Your task to perform on an android device: What is the recent news? Image 0: 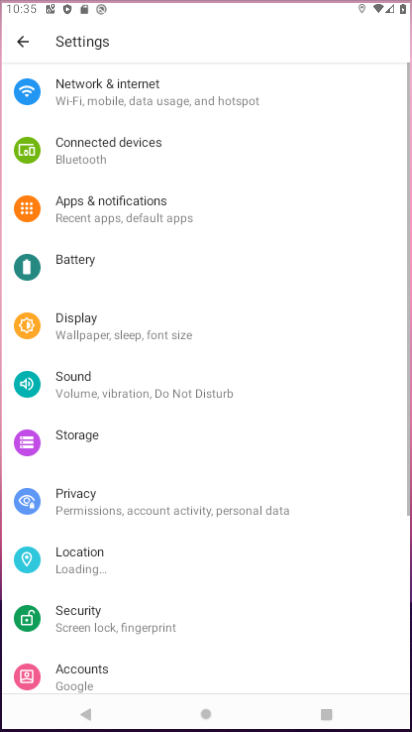
Step 0: press home button
Your task to perform on an android device: What is the recent news? Image 1: 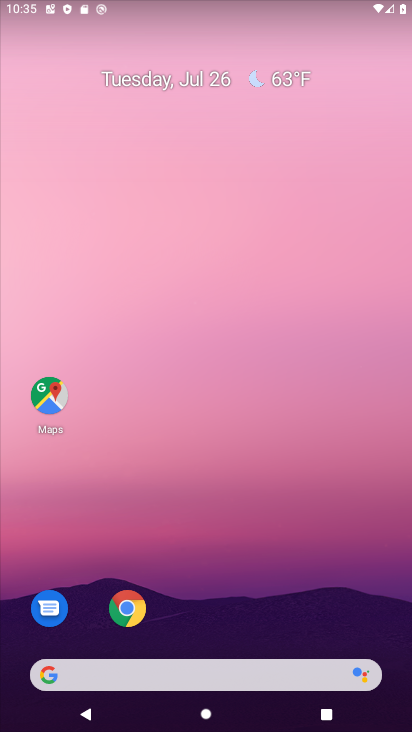
Step 1: click (50, 680)
Your task to perform on an android device: What is the recent news? Image 2: 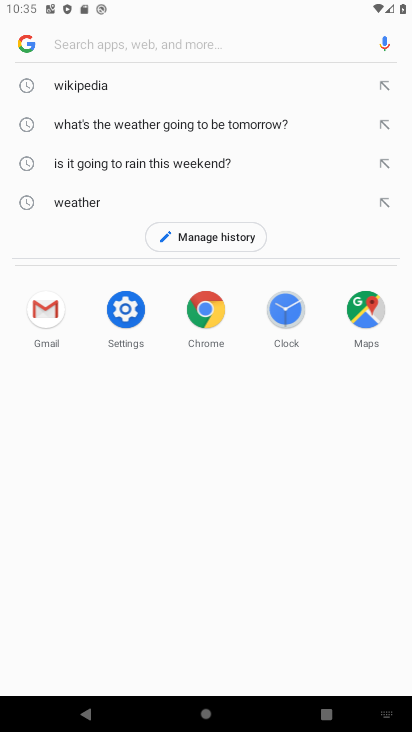
Step 2: type "recent news?"
Your task to perform on an android device: What is the recent news? Image 3: 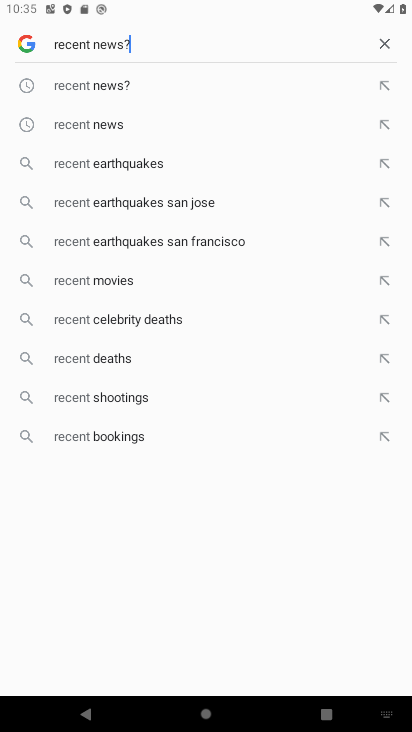
Step 3: press enter
Your task to perform on an android device: What is the recent news? Image 4: 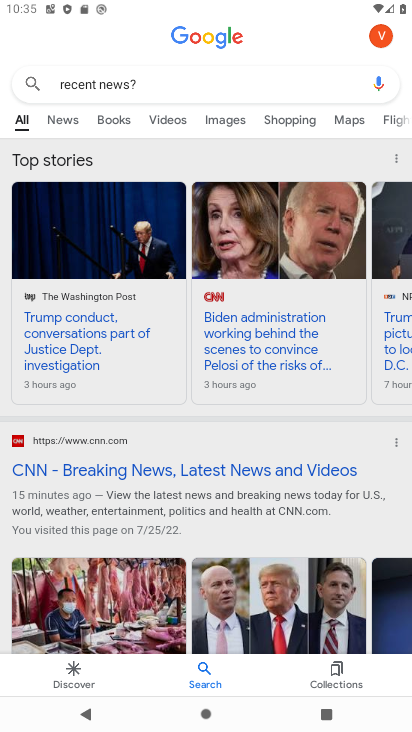
Step 4: task complete